Your task to perform on an android device: turn smart compose on in the gmail app Image 0: 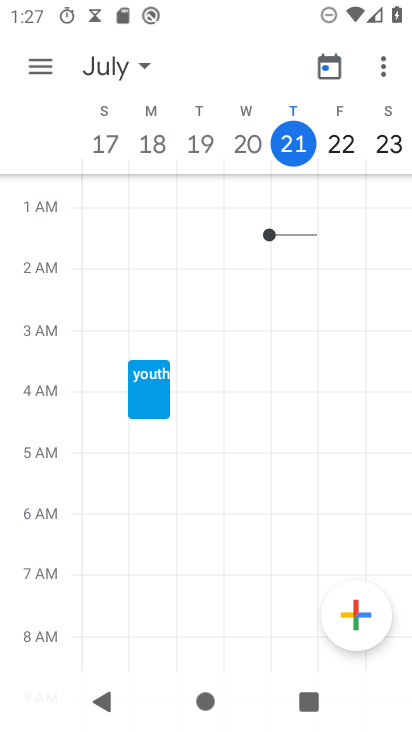
Step 0: press home button
Your task to perform on an android device: turn smart compose on in the gmail app Image 1: 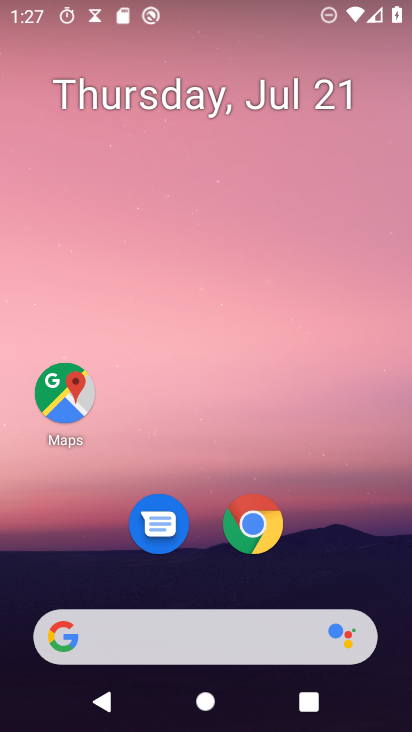
Step 1: drag from (180, 639) to (205, 165)
Your task to perform on an android device: turn smart compose on in the gmail app Image 2: 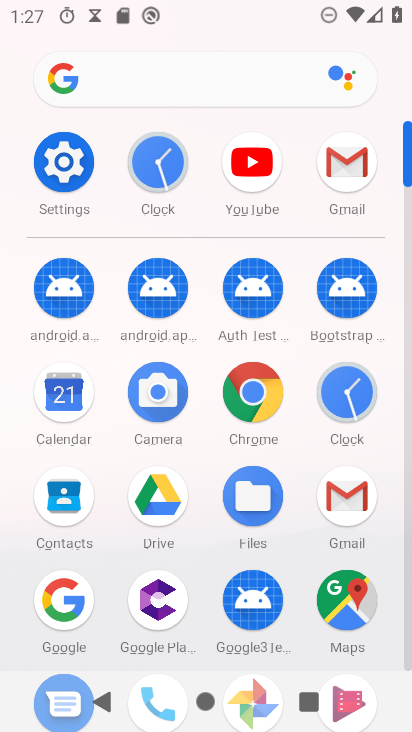
Step 2: click (357, 172)
Your task to perform on an android device: turn smart compose on in the gmail app Image 3: 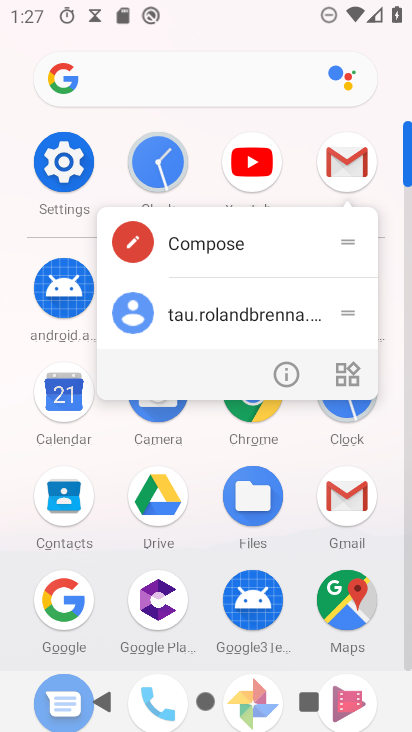
Step 3: click (352, 174)
Your task to perform on an android device: turn smart compose on in the gmail app Image 4: 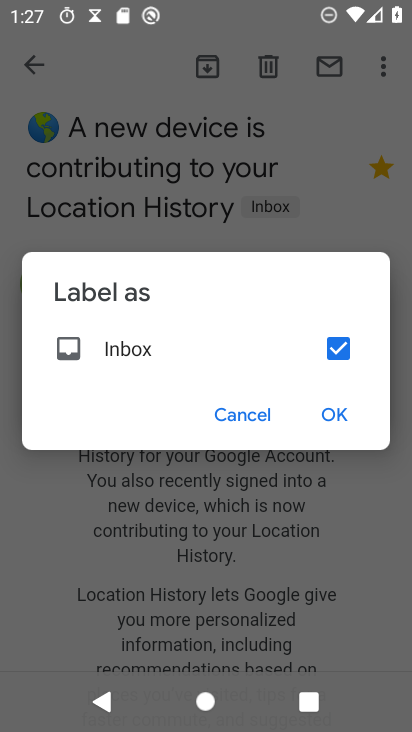
Step 4: click (324, 414)
Your task to perform on an android device: turn smart compose on in the gmail app Image 5: 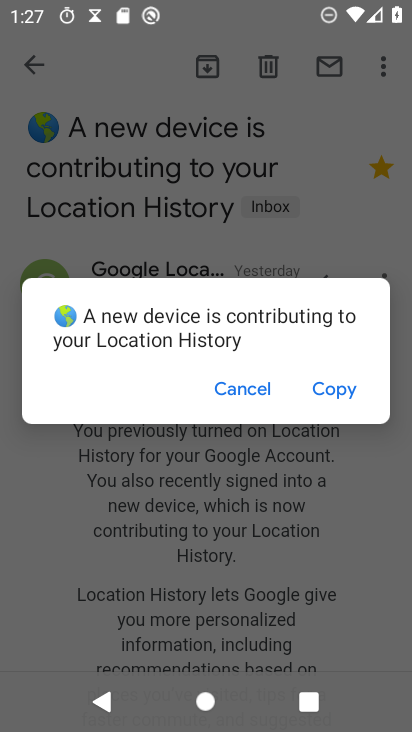
Step 5: click (39, 66)
Your task to perform on an android device: turn smart compose on in the gmail app Image 6: 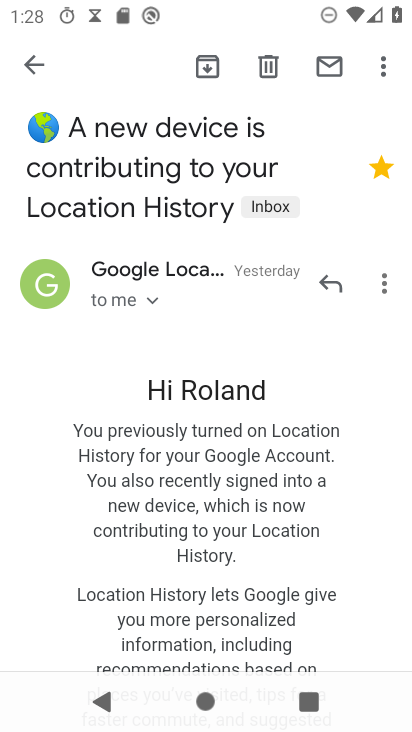
Step 6: click (39, 66)
Your task to perform on an android device: turn smart compose on in the gmail app Image 7: 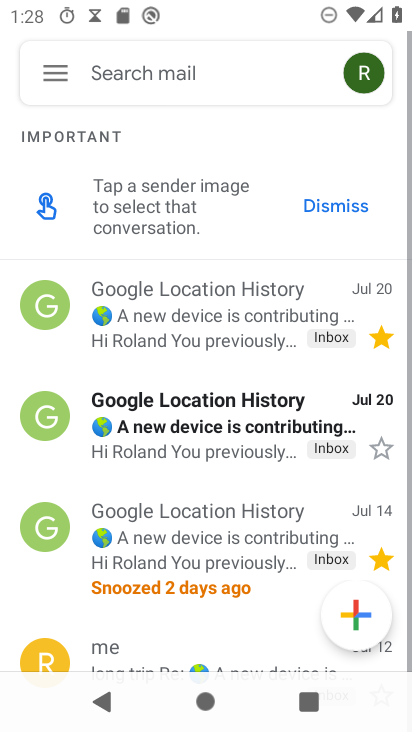
Step 7: click (45, 71)
Your task to perform on an android device: turn smart compose on in the gmail app Image 8: 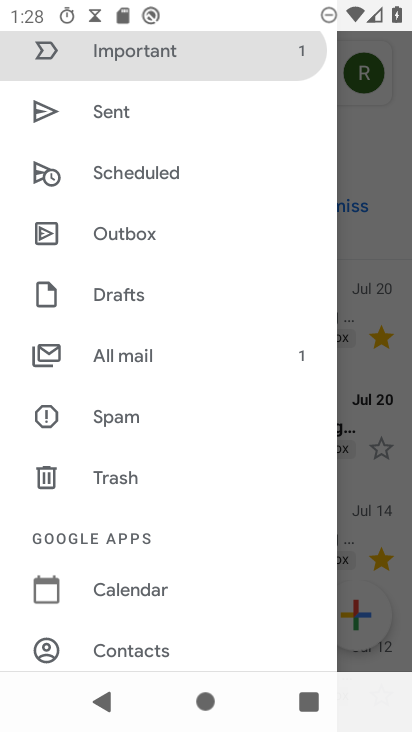
Step 8: drag from (205, 594) to (213, 135)
Your task to perform on an android device: turn smart compose on in the gmail app Image 9: 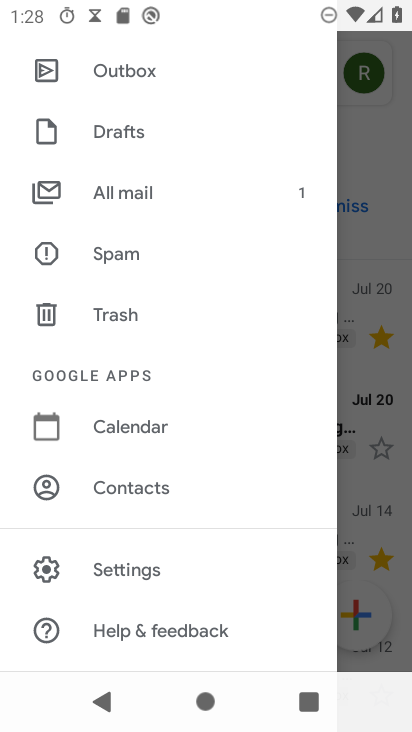
Step 9: click (122, 570)
Your task to perform on an android device: turn smart compose on in the gmail app Image 10: 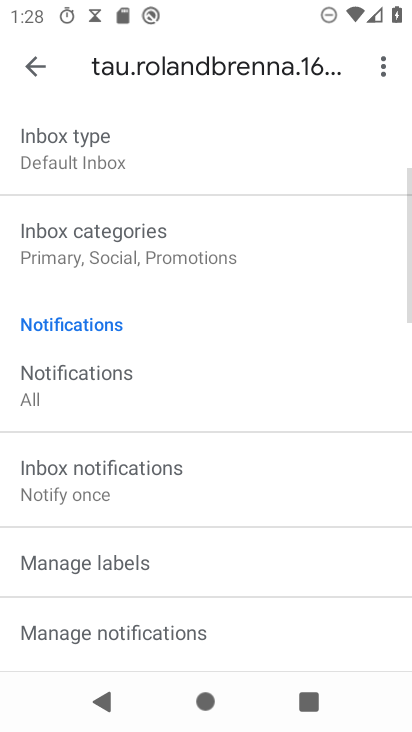
Step 10: task complete